Your task to perform on an android device: Search for "asus zenbook" on costco.com, select the first entry, and add it to the cart. Image 0: 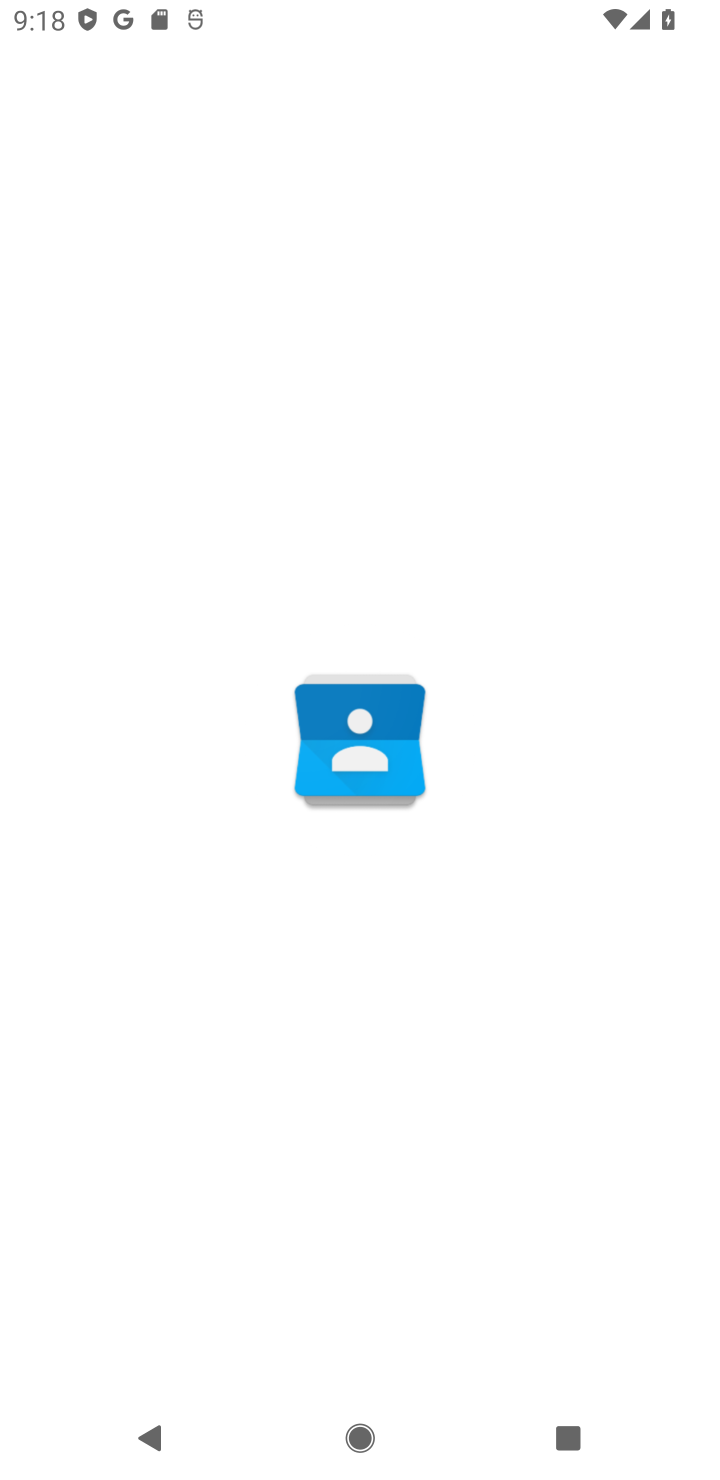
Step 0: press home button
Your task to perform on an android device: Search for "asus zenbook" on costco.com, select the first entry, and add it to the cart. Image 1: 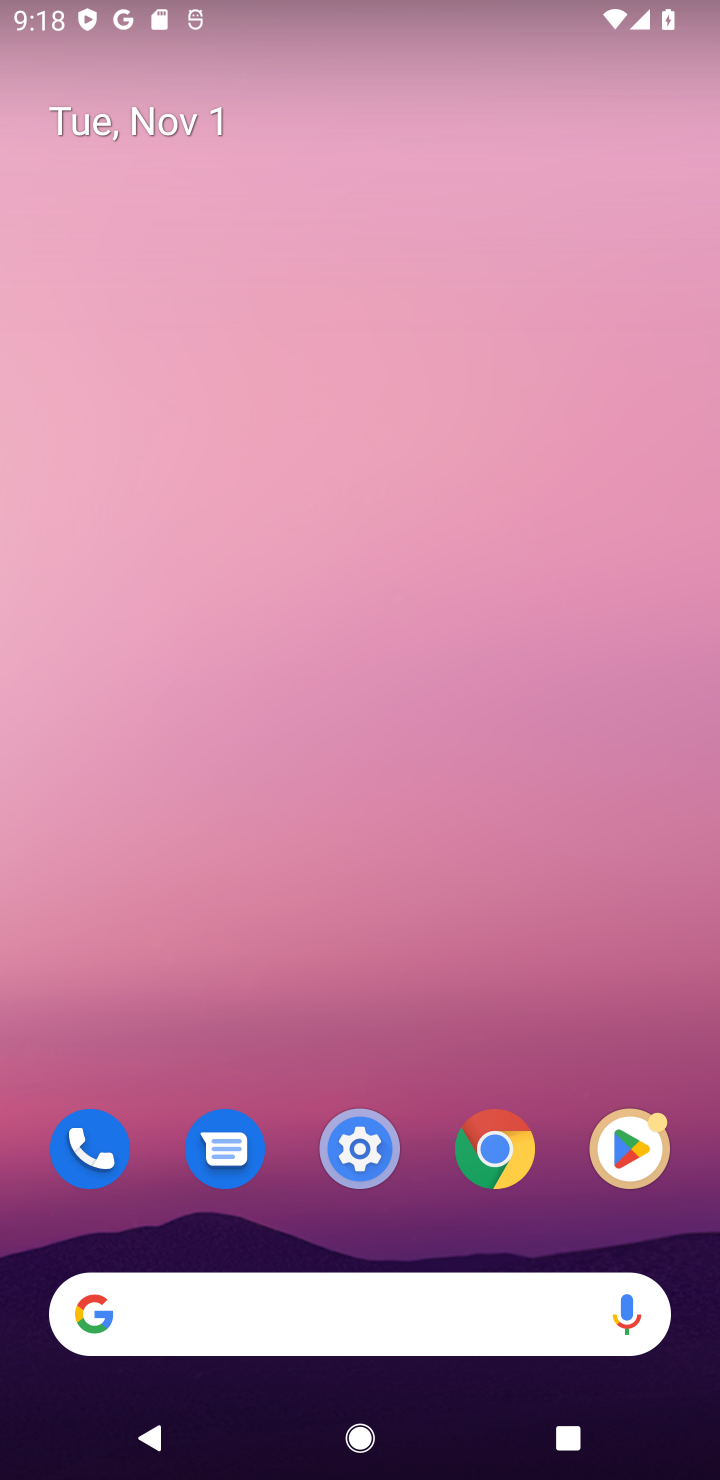
Step 1: click (142, 1304)
Your task to perform on an android device: Search for "asus zenbook" on costco.com, select the first entry, and add it to the cart. Image 2: 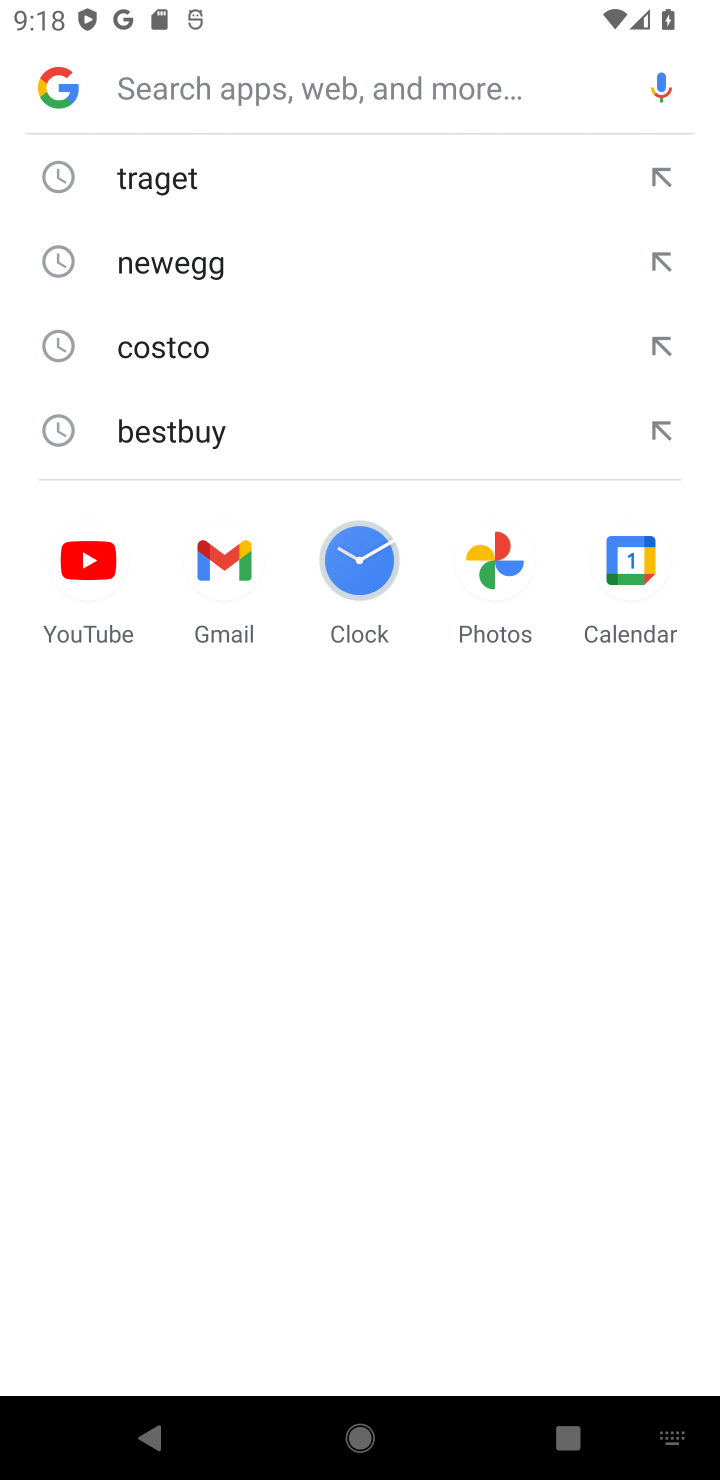
Step 2: type "costco.com"
Your task to perform on an android device: Search for "asus zenbook" on costco.com, select the first entry, and add it to the cart. Image 3: 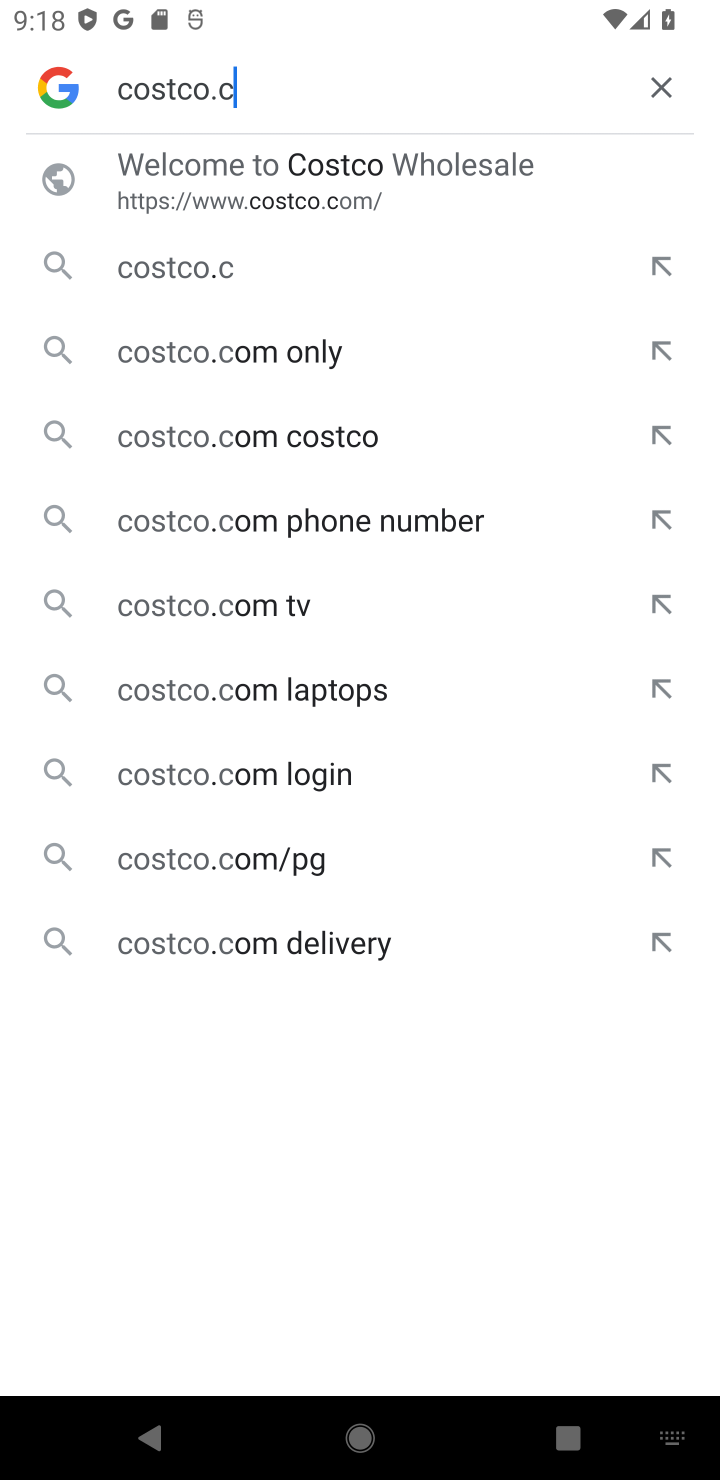
Step 3: press enter
Your task to perform on an android device: Search for "asus zenbook" on costco.com, select the first entry, and add it to the cart. Image 4: 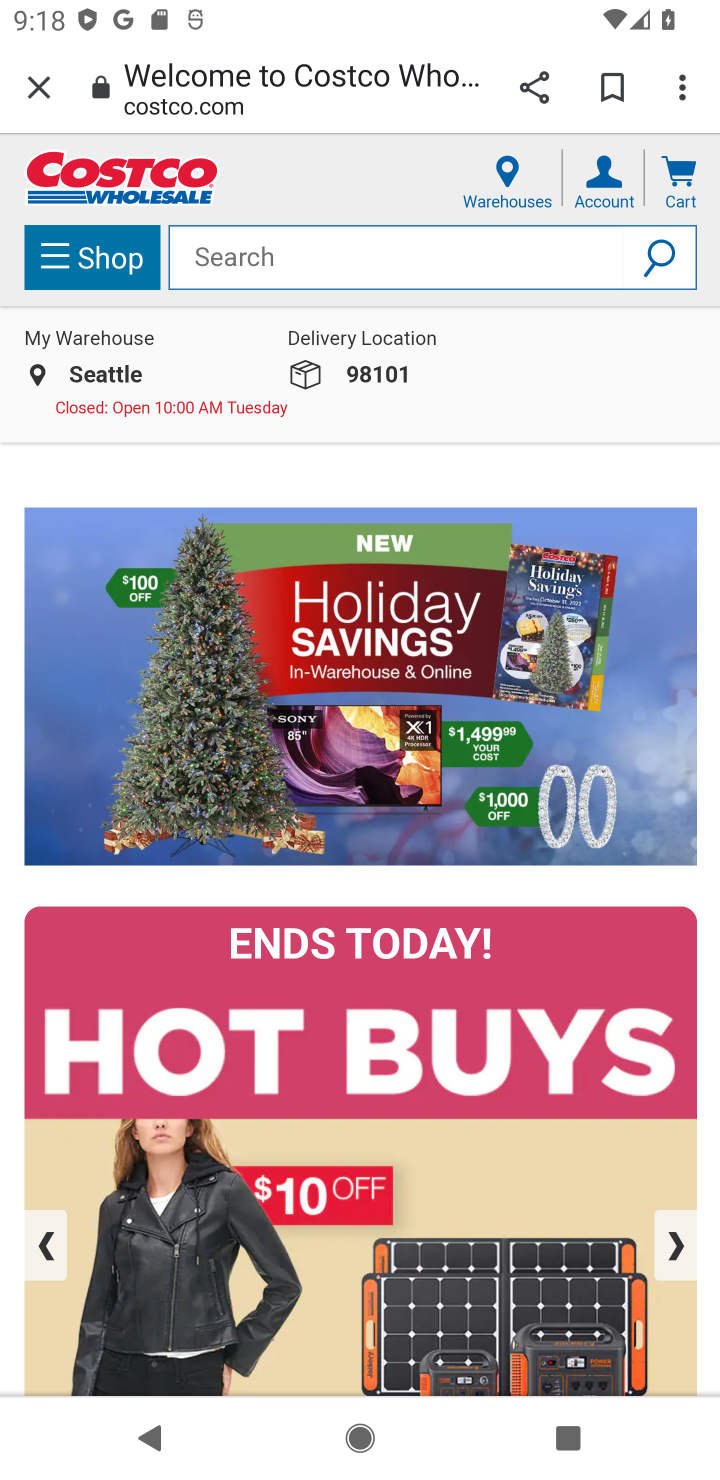
Step 4: click (265, 254)
Your task to perform on an android device: Search for "asus zenbook" on costco.com, select the first entry, and add it to the cart. Image 5: 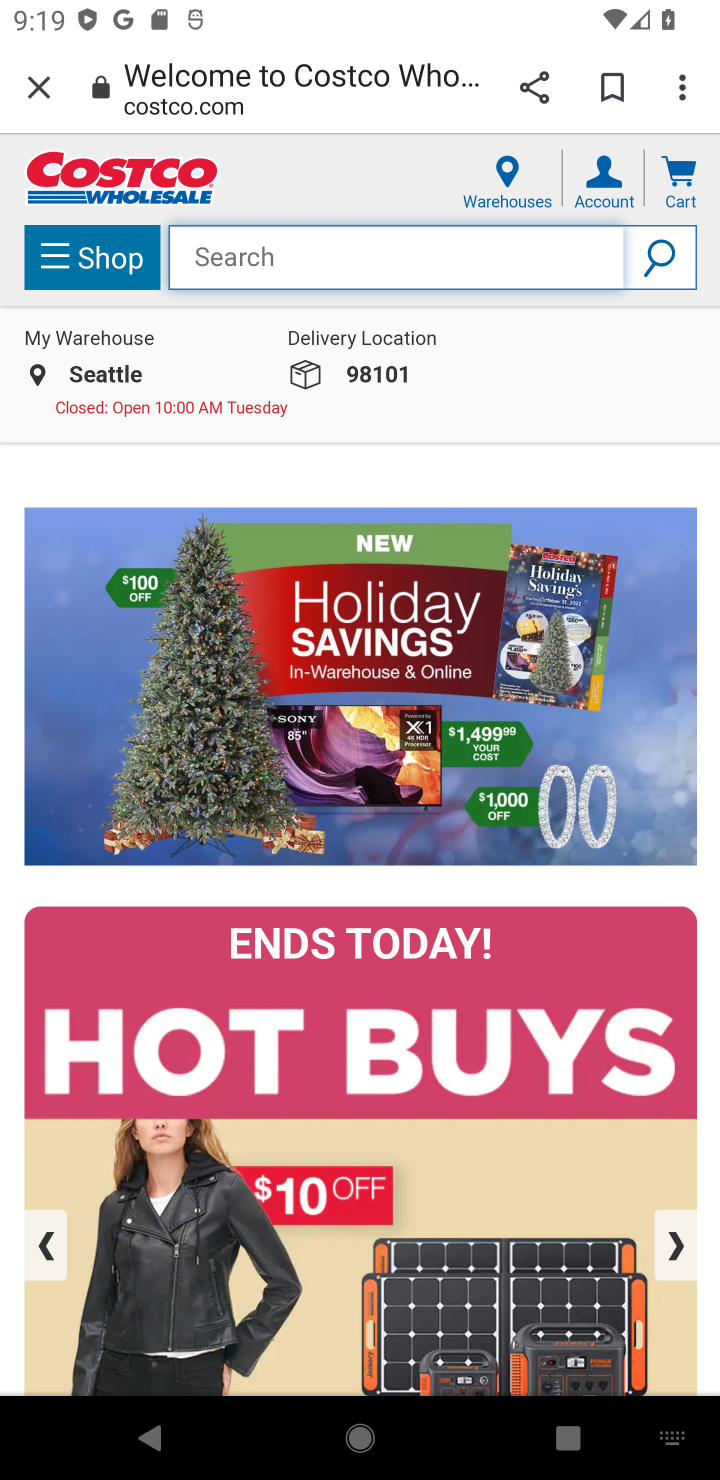
Step 5: type "asus zenbook"
Your task to perform on an android device: Search for "asus zenbook" on costco.com, select the first entry, and add it to the cart. Image 6: 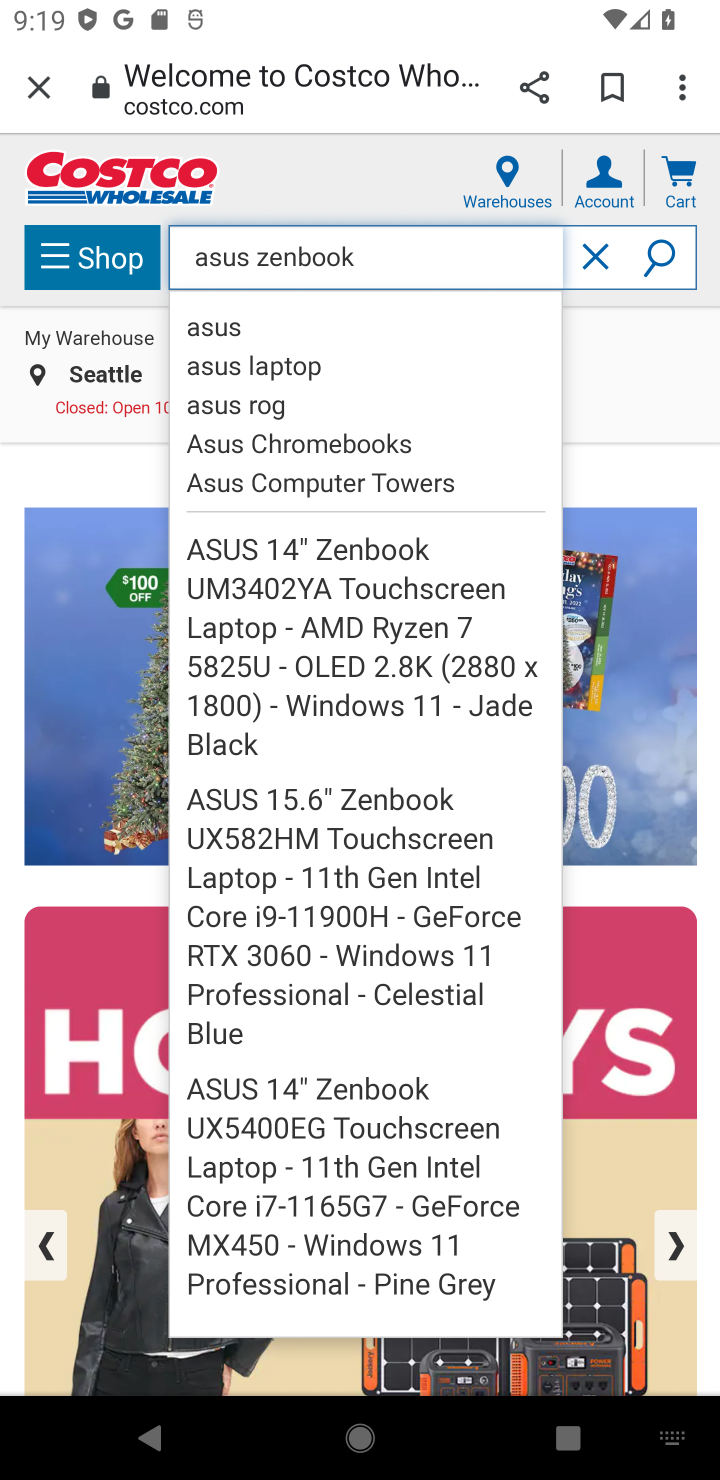
Step 6: click (673, 263)
Your task to perform on an android device: Search for "asus zenbook" on costco.com, select the first entry, and add it to the cart. Image 7: 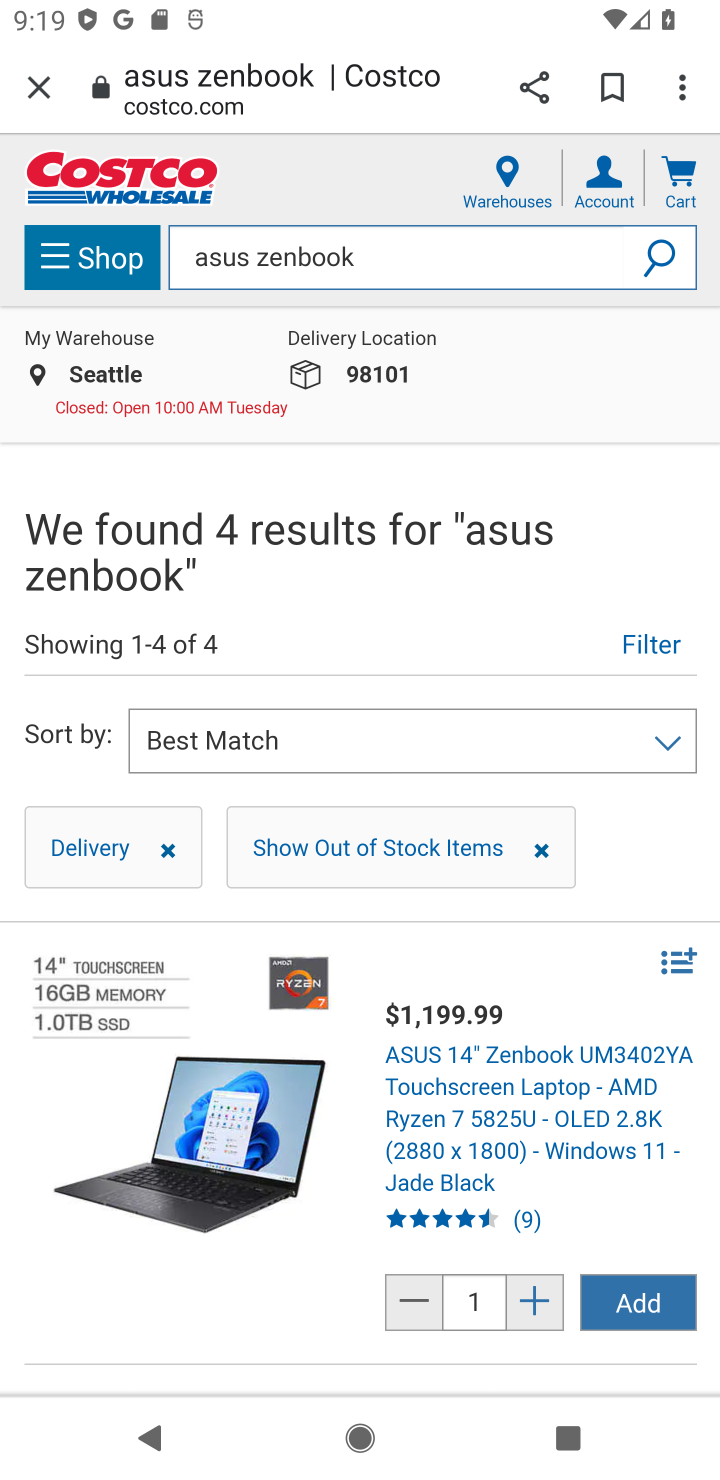
Step 7: click (646, 1304)
Your task to perform on an android device: Search for "asus zenbook" on costco.com, select the first entry, and add it to the cart. Image 8: 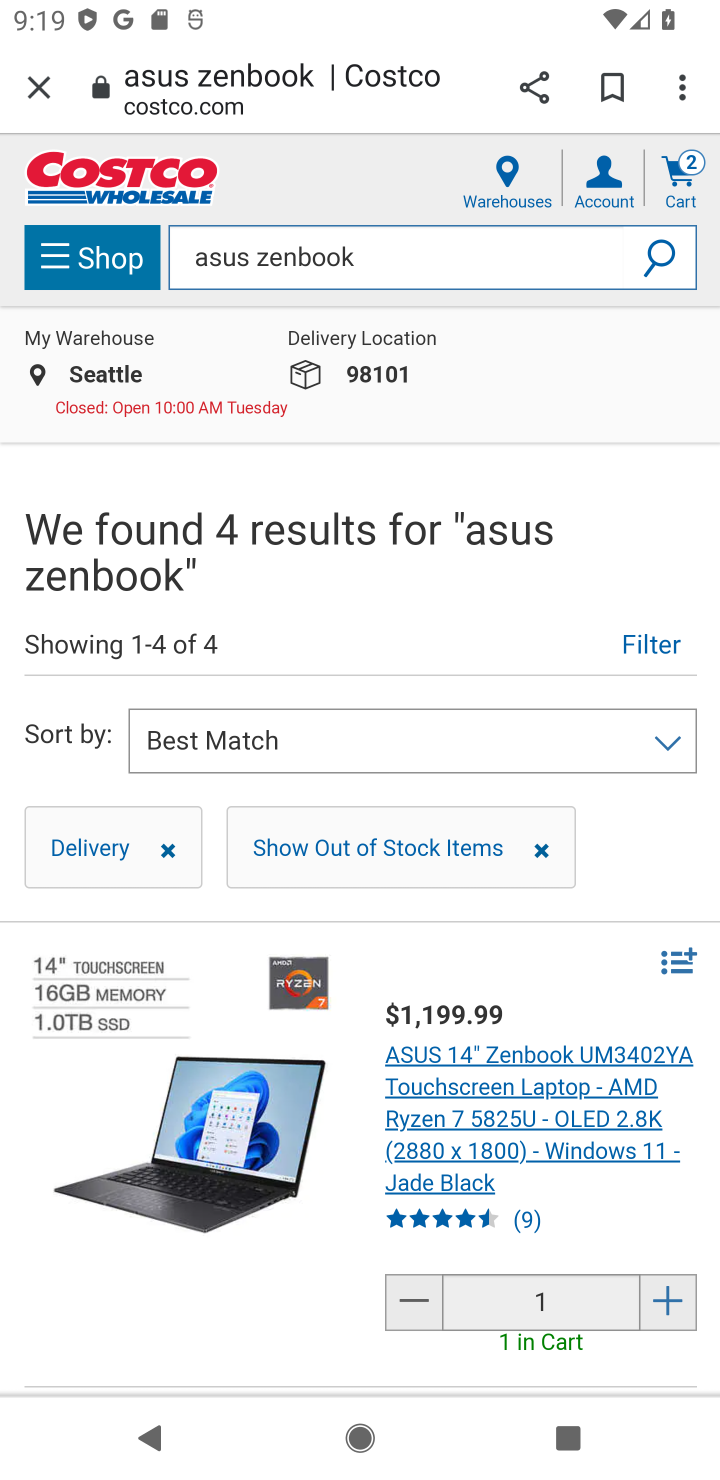
Step 8: task complete